Your task to perform on an android device: Open CNN.com Image 0: 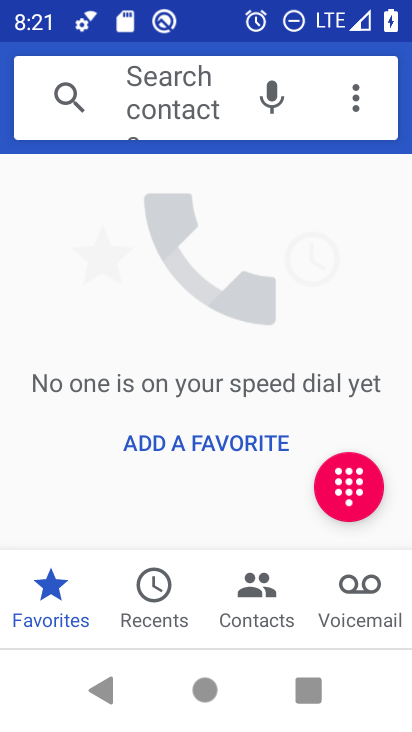
Step 0: press home button
Your task to perform on an android device: Open CNN.com Image 1: 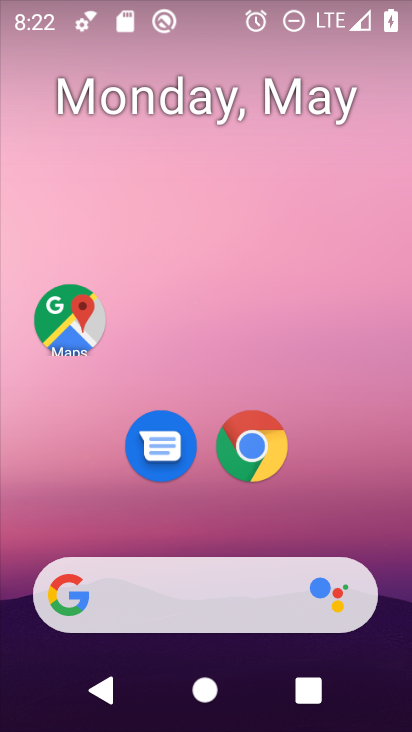
Step 1: click (161, 589)
Your task to perform on an android device: Open CNN.com Image 2: 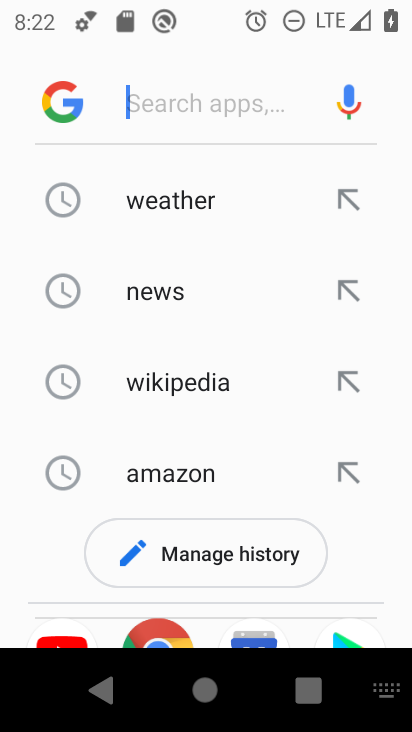
Step 2: type "cnn.com"
Your task to perform on an android device: Open CNN.com Image 3: 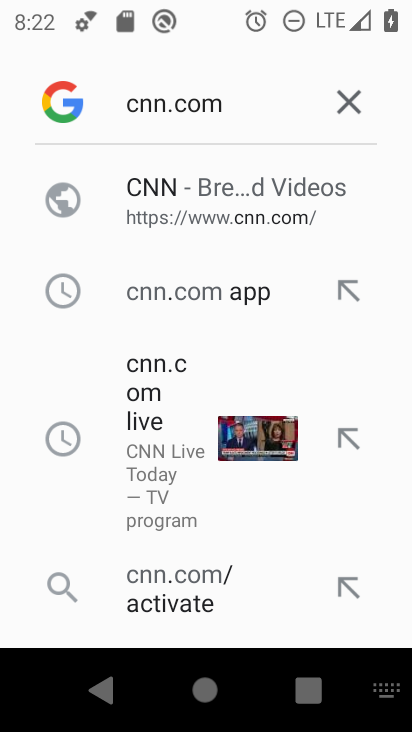
Step 3: click (173, 194)
Your task to perform on an android device: Open CNN.com Image 4: 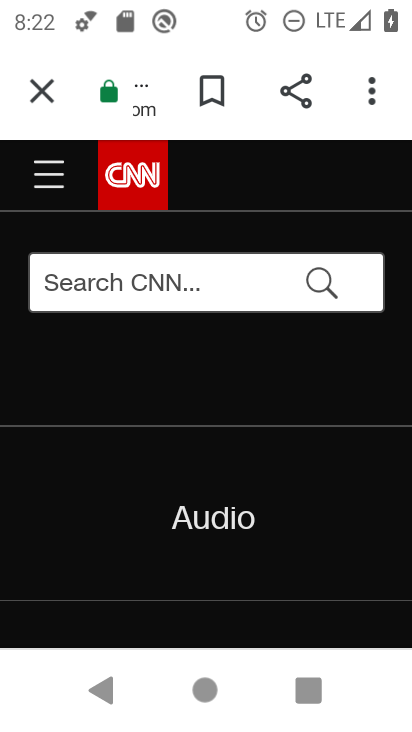
Step 4: task complete